Your task to perform on an android device: change keyboard looks Image 0: 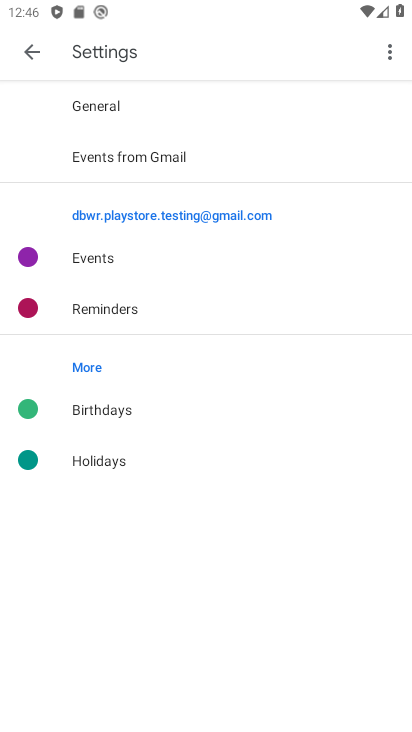
Step 0: press back button
Your task to perform on an android device: change keyboard looks Image 1: 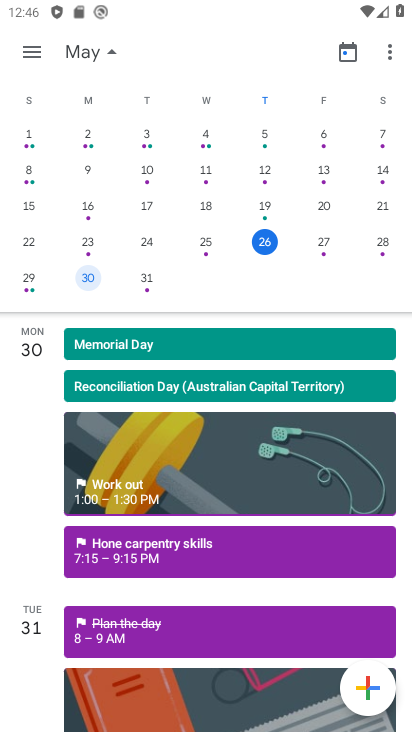
Step 1: press back button
Your task to perform on an android device: change keyboard looks Image 2: 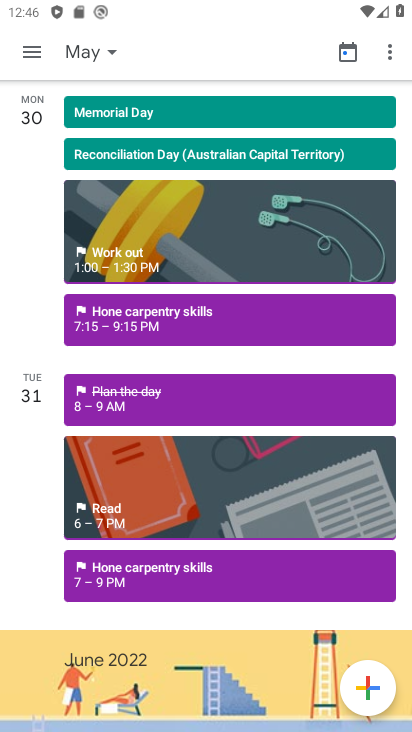
Step 2: press back button
Your task to perform on an android device: change keyboard looks Image 3: 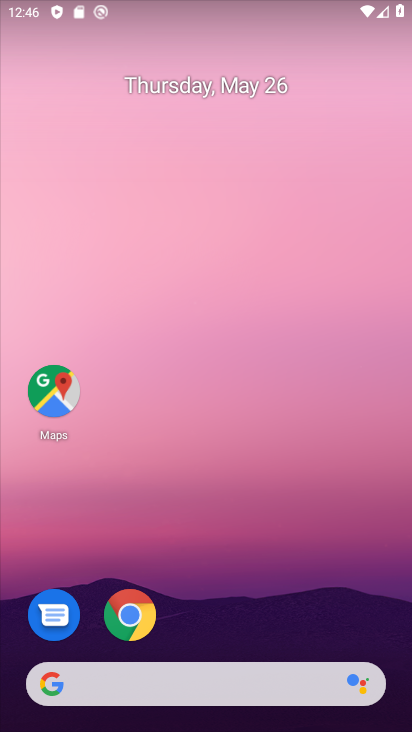
Step 3: drag from (239, 651) to (345, 122)
Your task to perform on an android device: change keyboard looks Image 4: 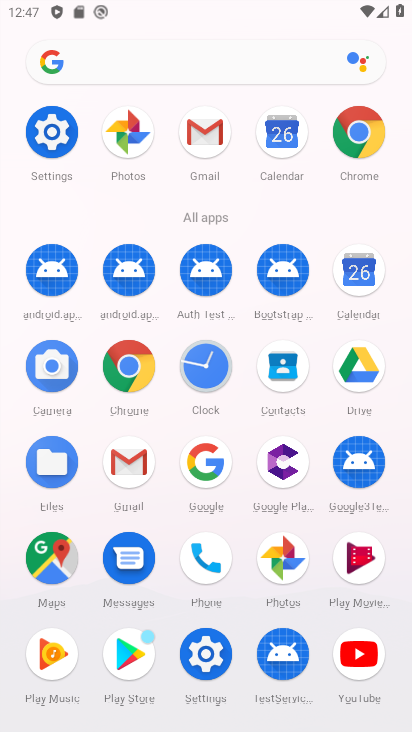
Step 4: click (43, 124)
Your task to perform on an android device: change keyboard looks Image 5: 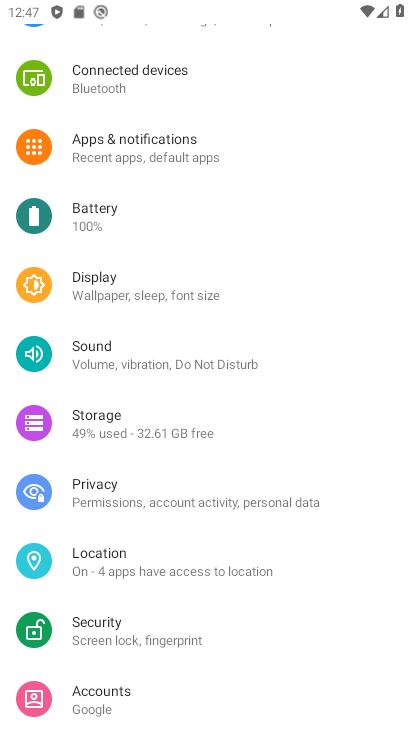
Step 5: drag from (177, 649) to (240, 230)
Your task to perform on an android device: change keyboard looks Image 6: 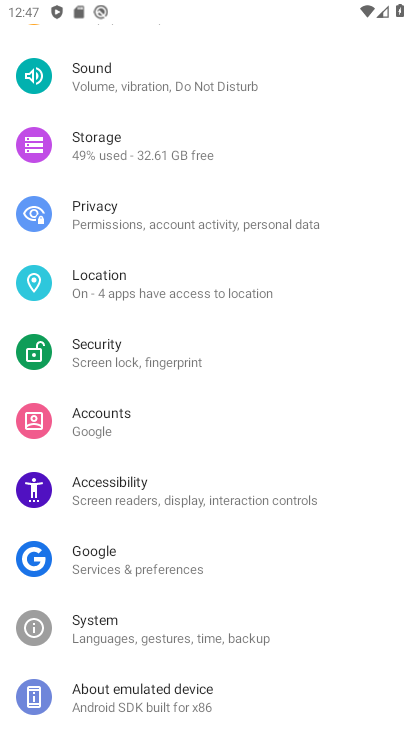
Step 6: click (151, 648)
Your task to perform on an android device: change keyboard looks Image 7: 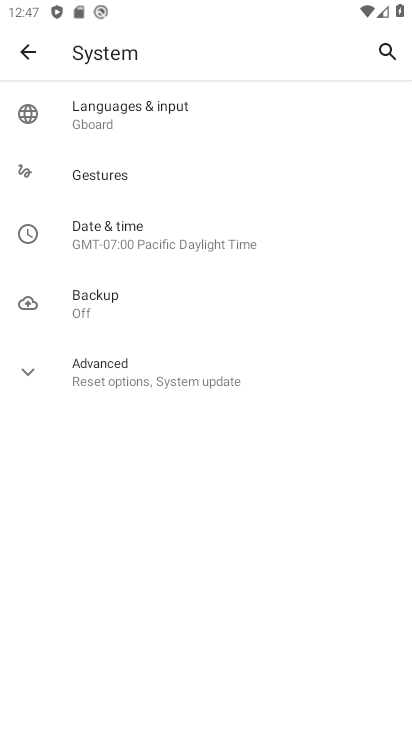
Step 7: click (167, 114)
Your task to perform on an android device: change keyboard looks Image 8: 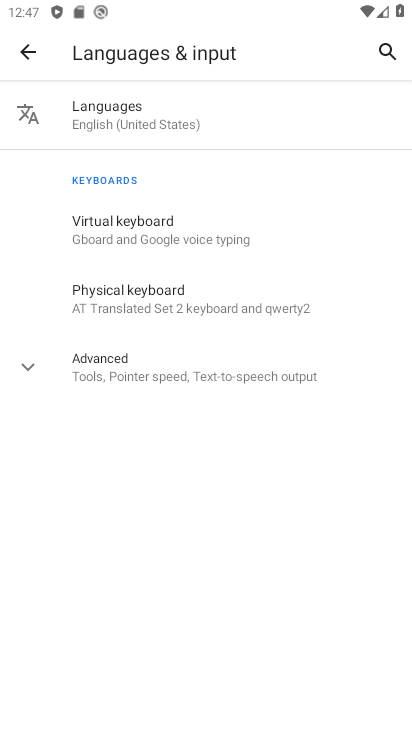
Step 8: click (129, 218)
Your task to perform on an android device: change keyboard looks Image 9: 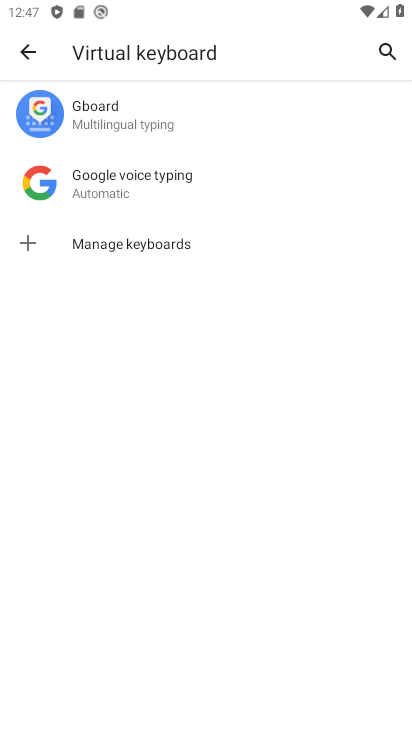
Step 9: click (112, 119)
Your task to perform on an android device: change keyboard looks Image 10: 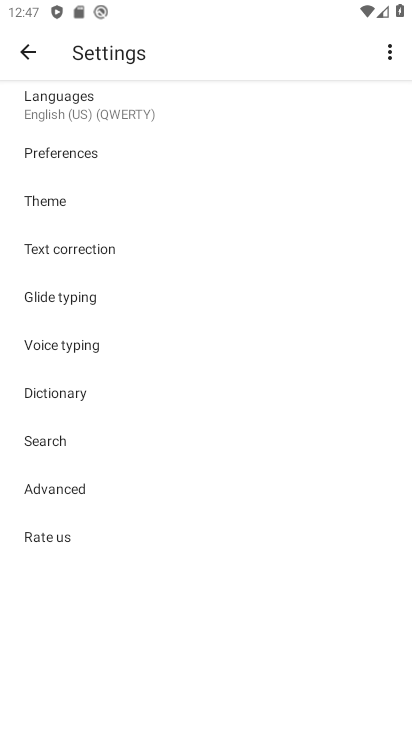
Step 10: click (42, 193)
Your task to perform on an android device: change keyboard looks Image 11: 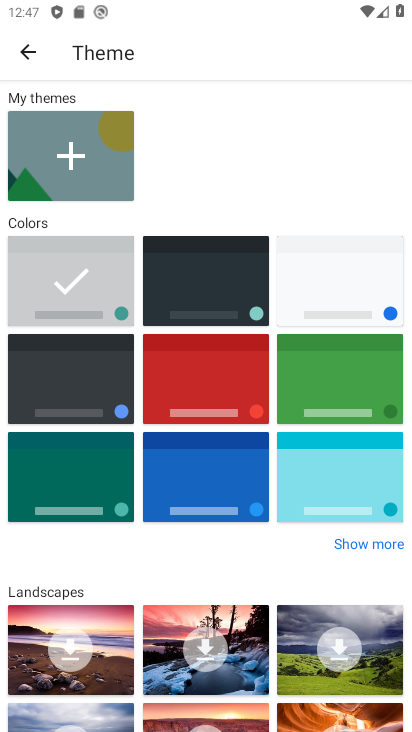
Step 11: click (354, 370)
Your task to perform on an android device: change keyboard looks Image 12: 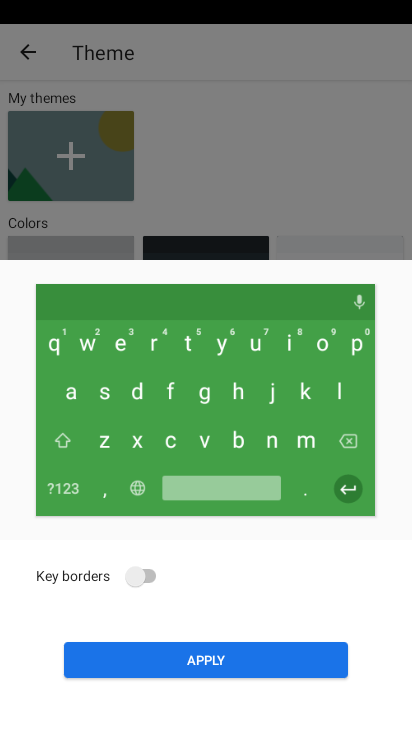
Step 12: click (242, 649)
Your task to perform on an android device: change keyboard looks Image 13: 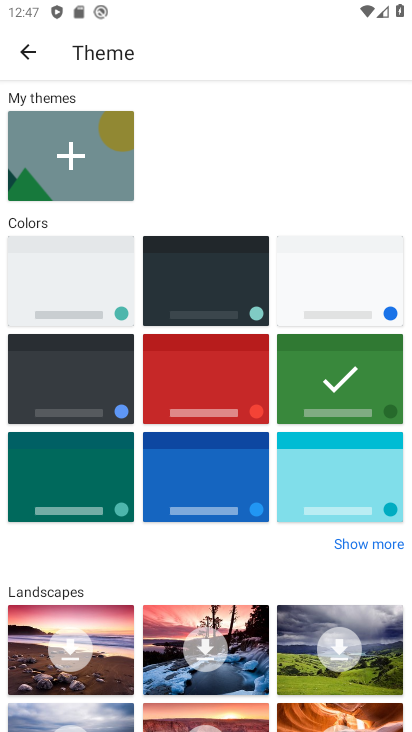
Step 13: task complete